Your task to perform on an android device: Open the Play Movies app and select the watchlist tab. Image 0: 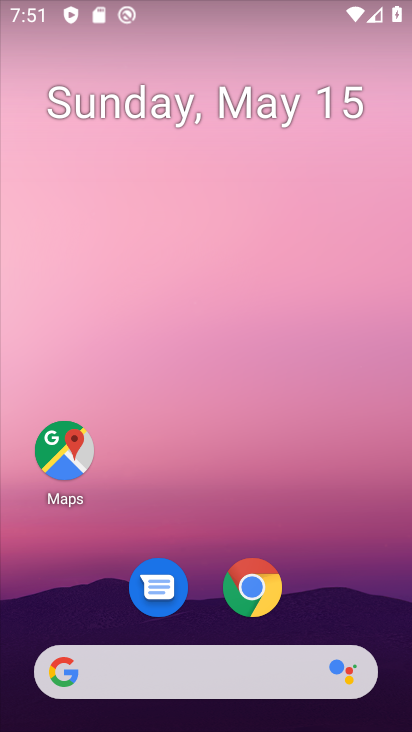
Step 0: click (200, 262)
Your task to perform on an android device: Open the Play Movies app and select the watchlist tab. Image 1: 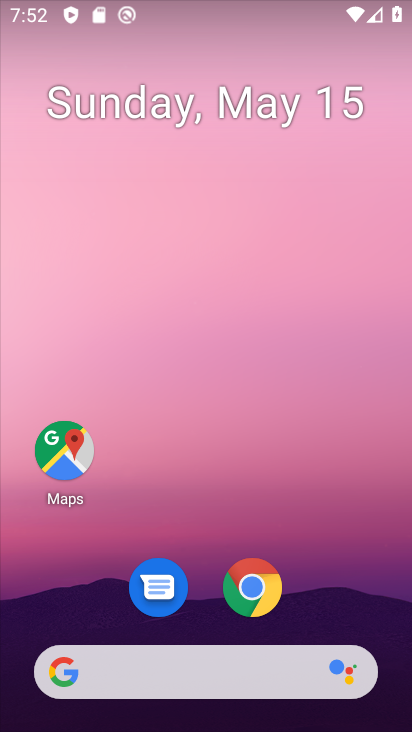
Step 1: drag from (224, 596) to (236, 186)
Your task to perform on an android device: Open the Play Movies app and select the watchlist tab. Image 2: 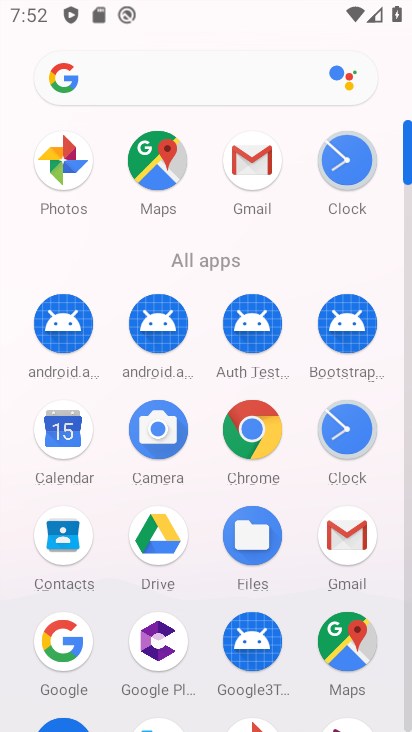
Step 2: drag from (313, 616) to (315, 252)
Your task to perform on an android device: Open the Play Movies app and select the watchlist tab. Image 3: 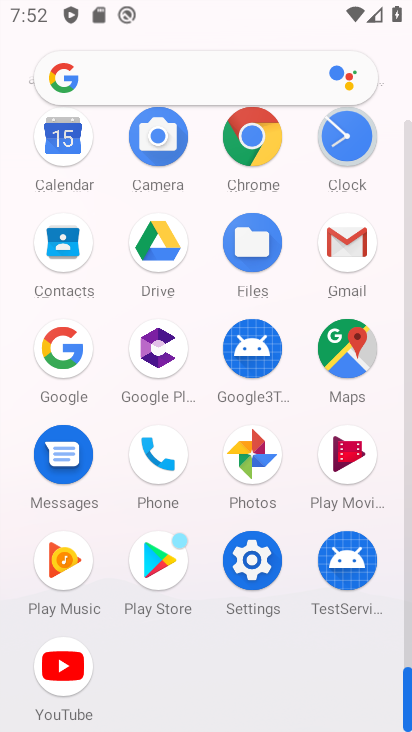
Step 3: click (340, 453)
Your task to perform on an android device: Open the Play Movies app and select the watchlist tab. Image 4: 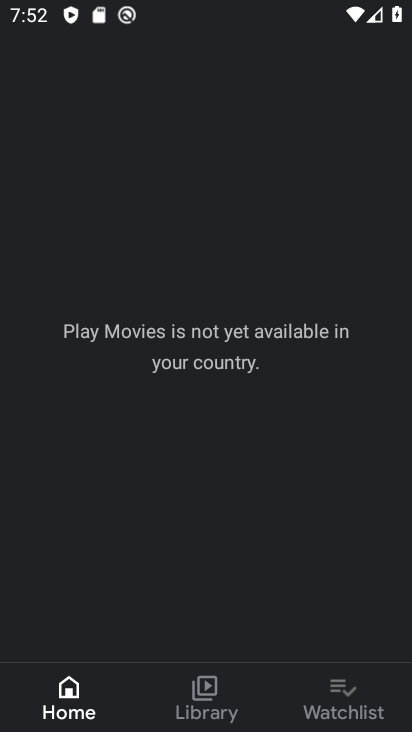
Step 4: click (351, 702)
Your task to perform on an android device: Open the Play Movies app and select the watchlist tab. Image 5: 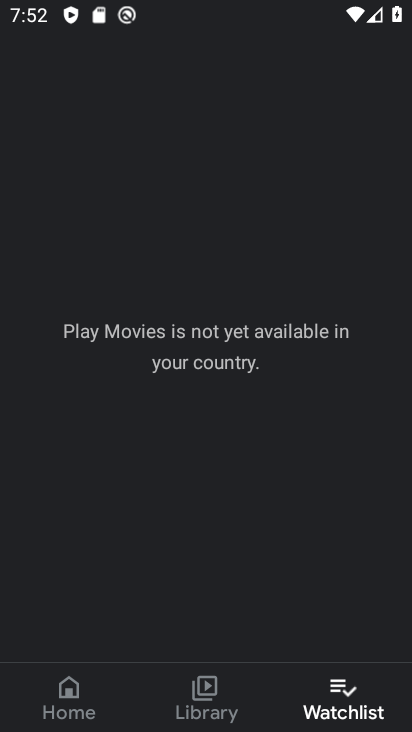
Step 5: click (173, 445)
Your task to perform on an android device: Open the Play Movies app and select the watchlist tab. Image 6: 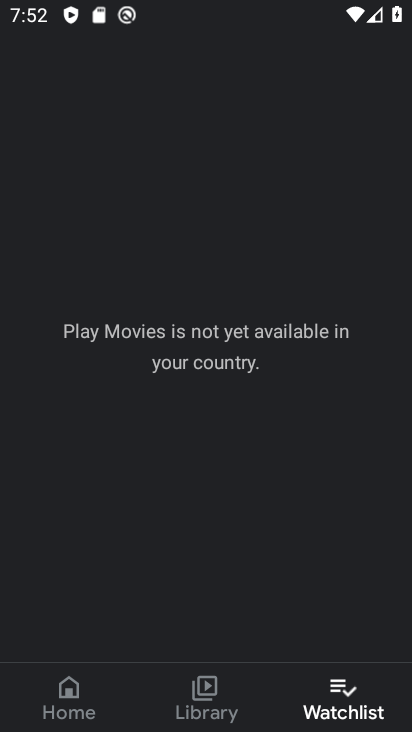
Step 6: click (375, 723)
Your task to perform on an android device: Open the Play Movies app and select the watchlist tab. Image 7: 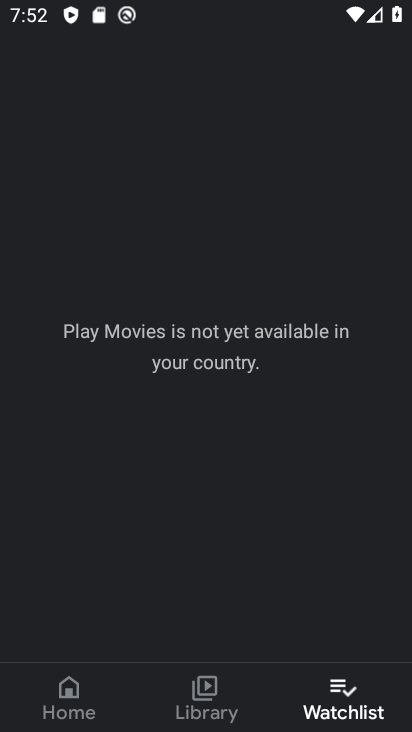
Step 7: task complete